Your task to perform on an android device: open a new tab in the chrome app Image 0: 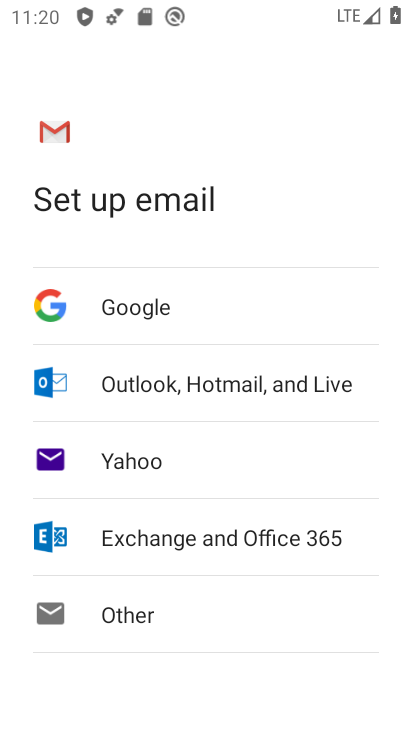
Step 0: press home button
Your task to perform on an android device: open a new tab in the chrome app Image 1: 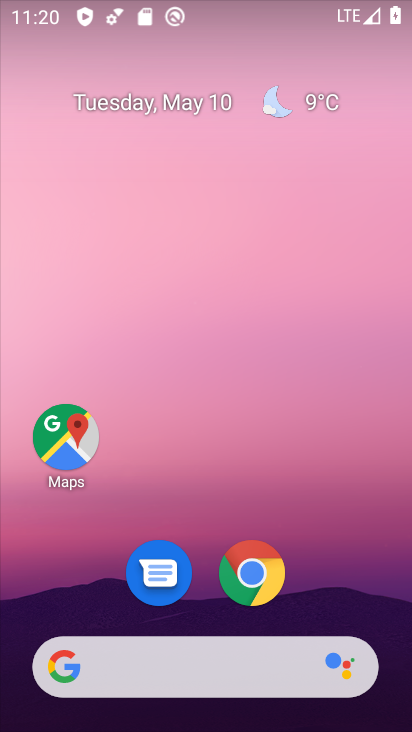
Step 1: drag from (170, 651) to (272, 183)
Your task to perform on an android device: open a new tab in the chrome app Image 2: 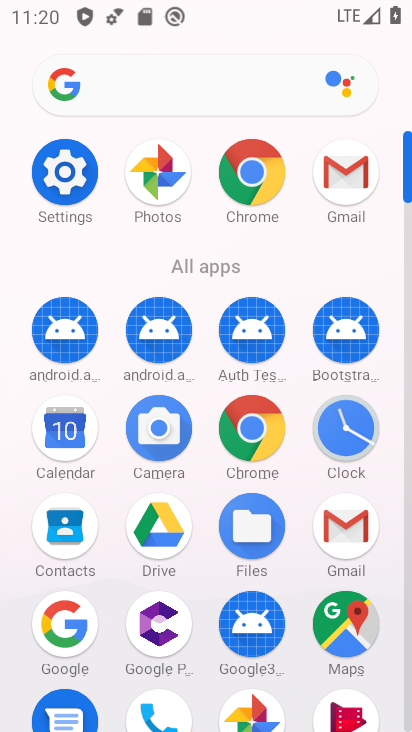
Step 2: click (235, 191)
Your task to perform on an android device: open a new tab in the chrome app Image 3: 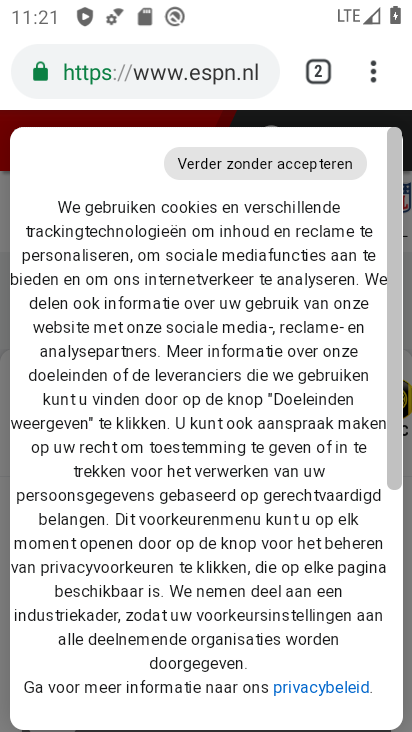
Step 3: task complete